Your task to perform on an android device: Show the shopping cart on newegg. Search for "razer kraken" on newegg, select the first entry, and add it to the cart. Image 0: 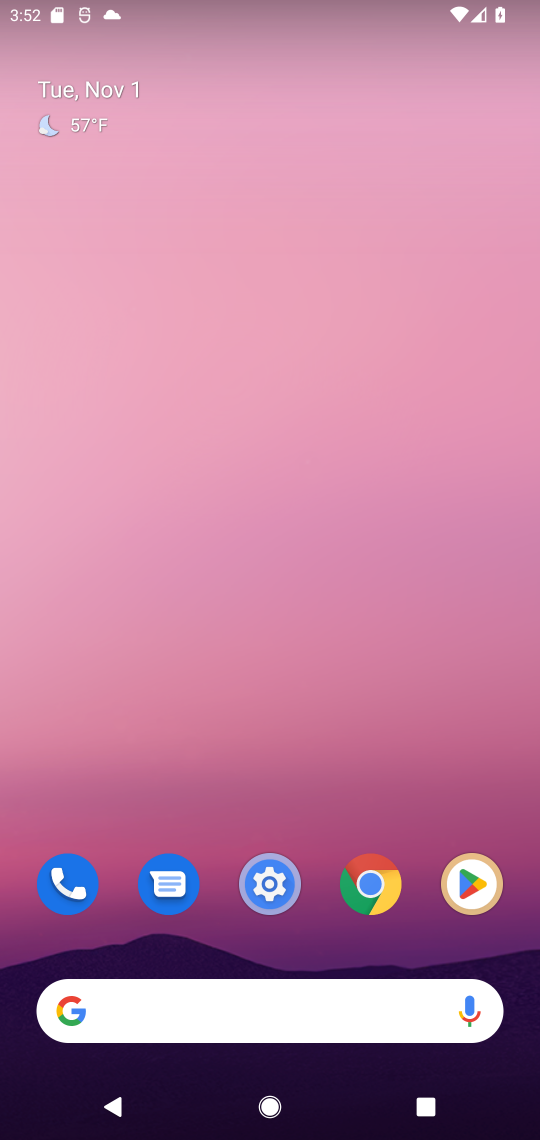
Step 0: press home button
Your task to perform on an android device: Show the shopping cart on newegg. Search for "razer kraken" on newegg, select the first entry, and add it to the cart. Image 1: 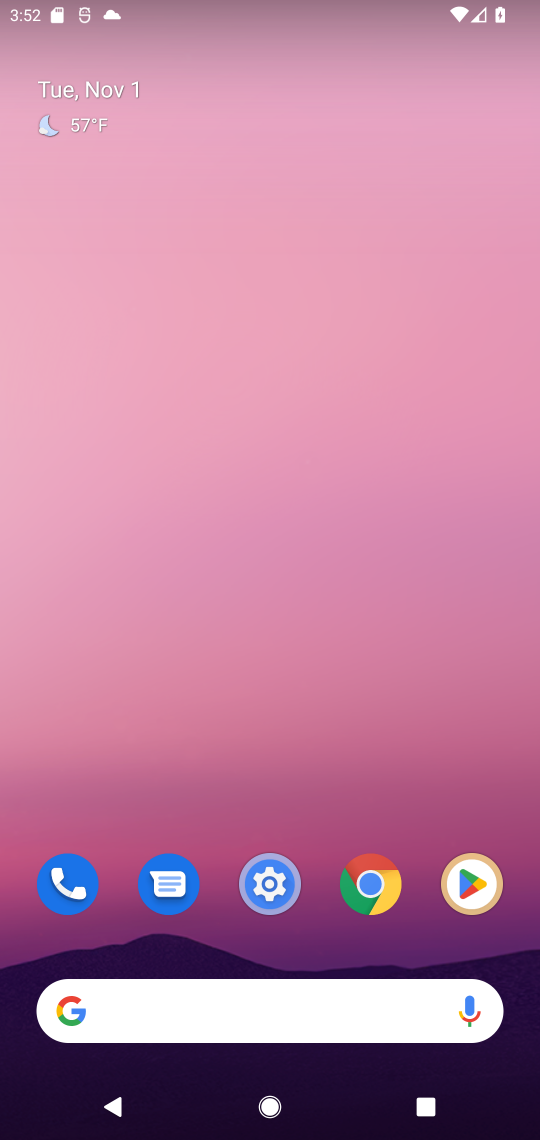
Step 1: click (122, 1002)
Your task to perform on an android device: Show the shopping cart on newegg. Search for "razer kraken" on newegg, select the first entry, and add it to the cart. Image 2: 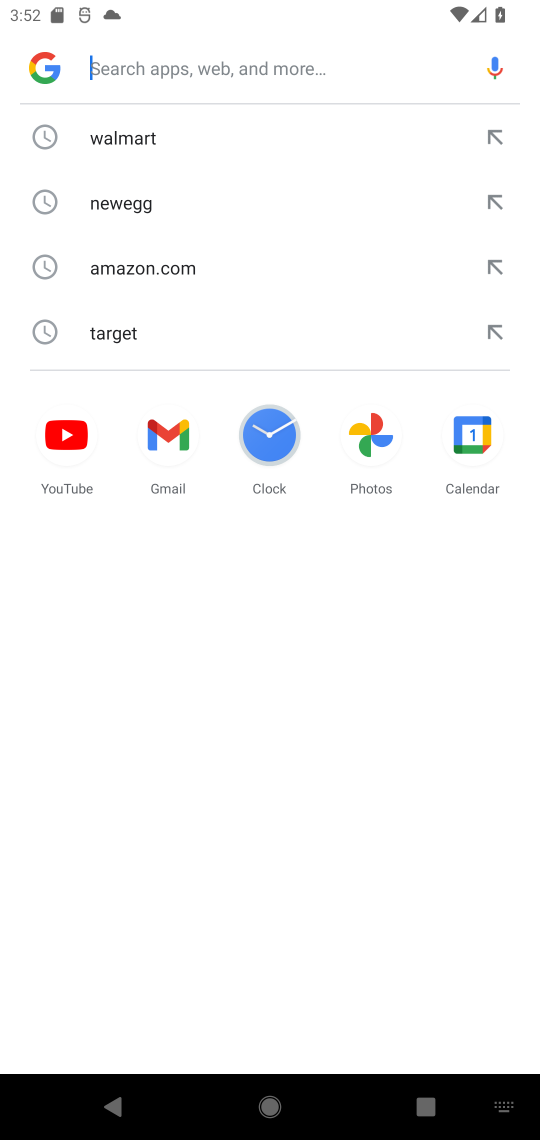
Step 2: type " newegg"
Your task to perform on an android device: Show the shopping cart on newegg. Search for "razer kraken" on newegg, select the first entry, and add it to the cart. Image 3: 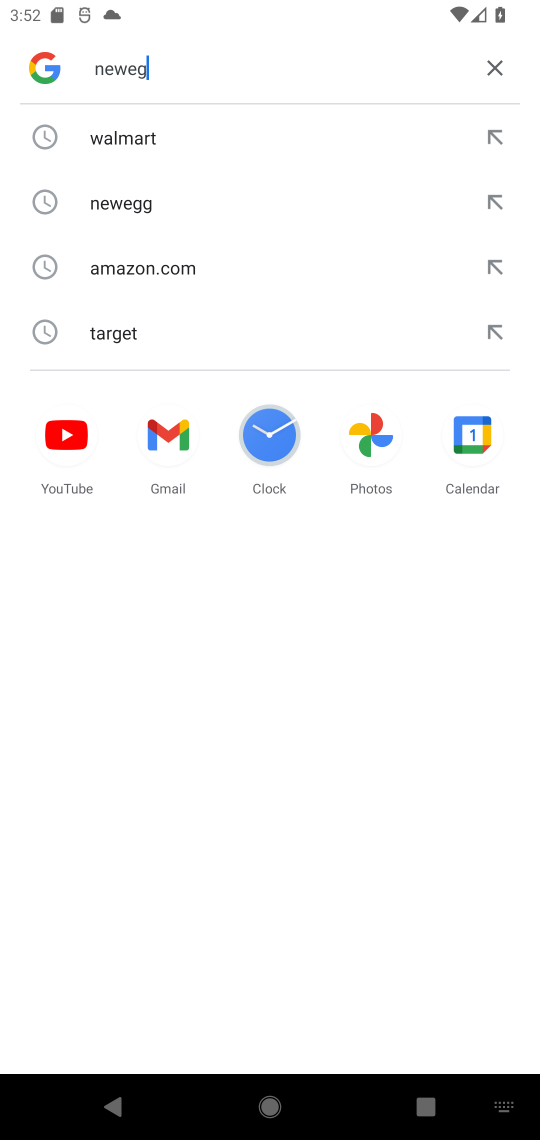
Step 3: press enter
Your task to perform on an android device: Show the shopping cart on newegg. Search for "razer kraken" on newegg, select the first entry, and add it to the cart. Image 4: 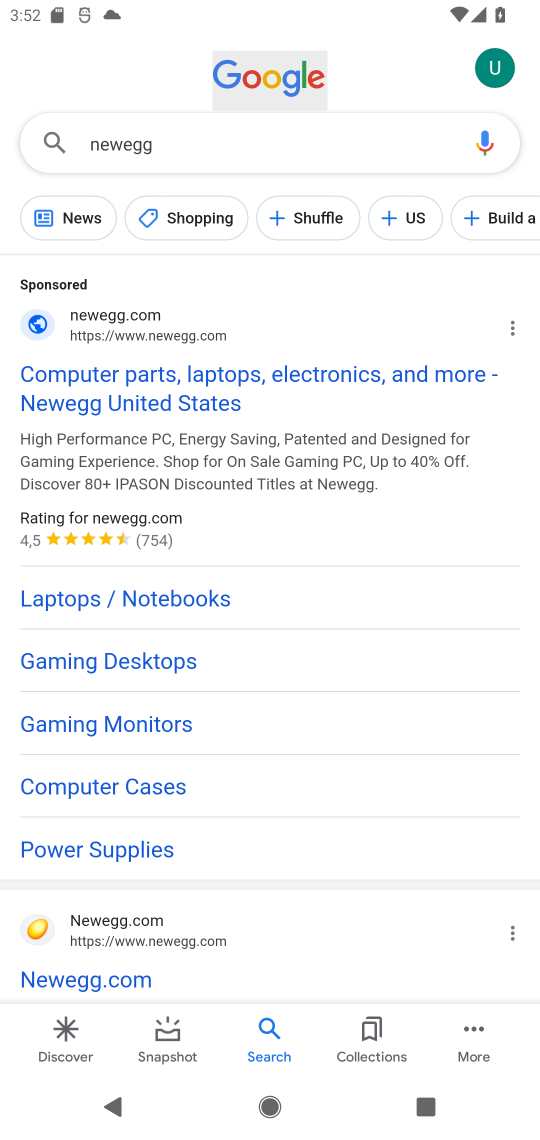
Step 4: drag from (376, 854) to (391, 443)
Your task to perform on an android device: Show the shopping cart on newegg. Search for "razer kraken" on newegg, select the first entry, and add it to the cart. Image 5: 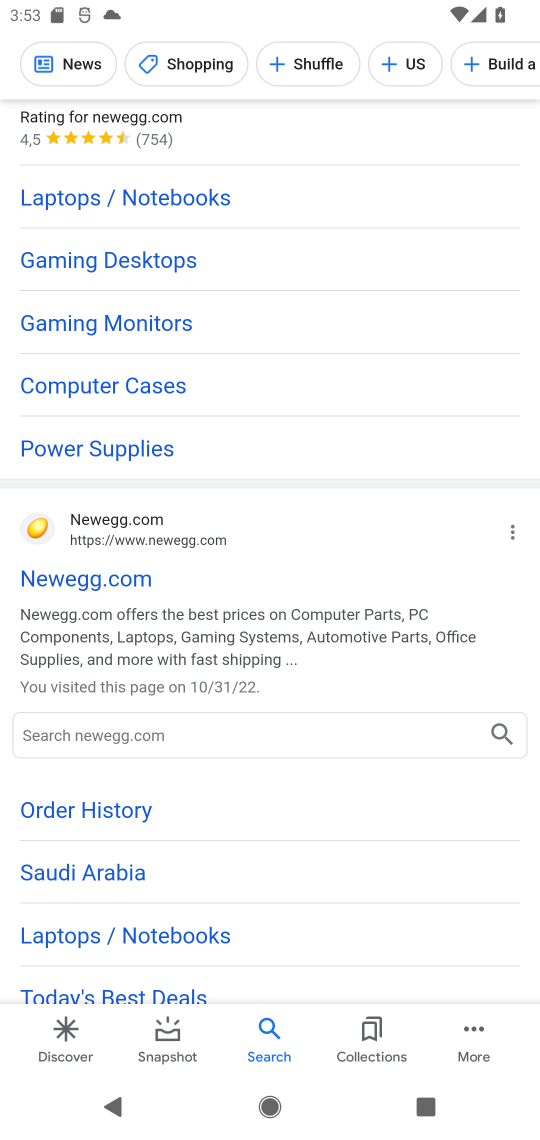
Step 5: click (86, 574)
Your task to perform on an android device: Show the shopping cart on newegg. Search for "razer kraken" on newegg, select the first entry, and add it to the cart. Image 6: 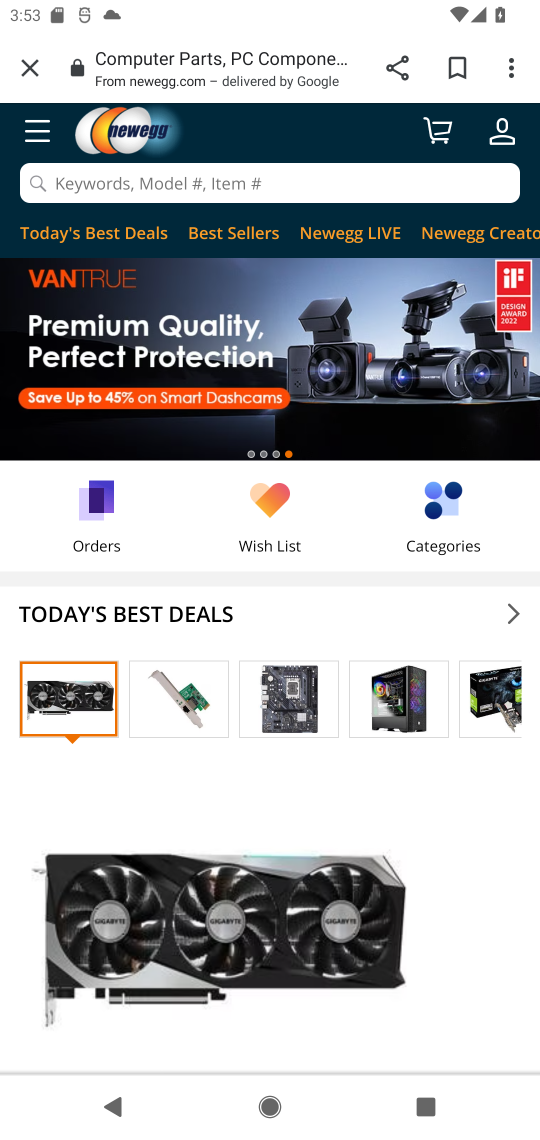
Step 6: click (433, 130)
Your task to perform on an android device: Show the shopping cart on newegg. Search for "razer kraken" on newegg, select the first entry, and add it to the cart. Image 7: 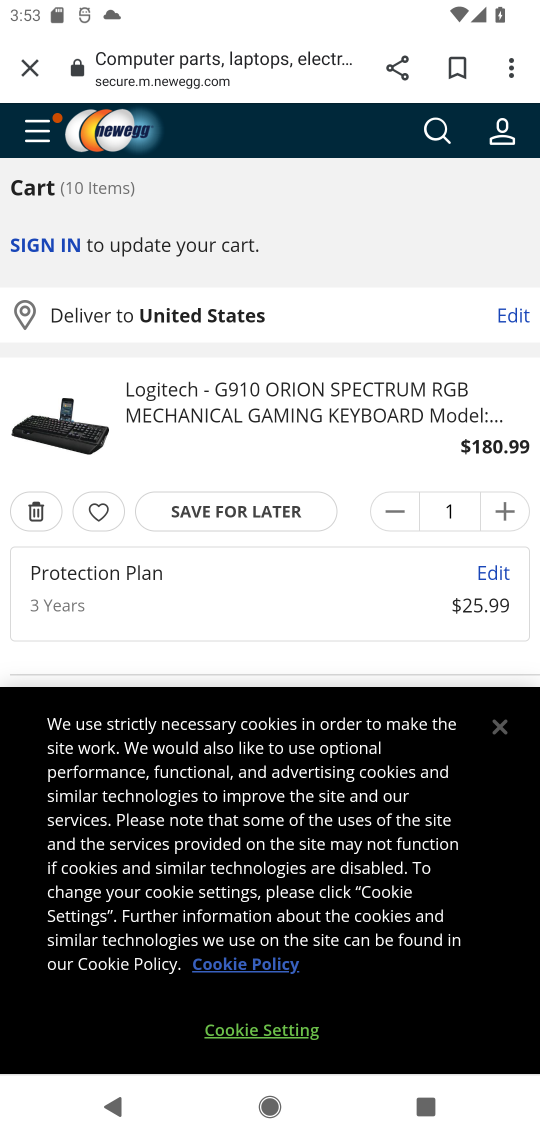
Step 7: click (435, 133)
Your task to perform on an android device: Show the shopping cart on newegg. Search for "razer kraken" on newegg, select the first entry, and add it to the cart. Image 8: 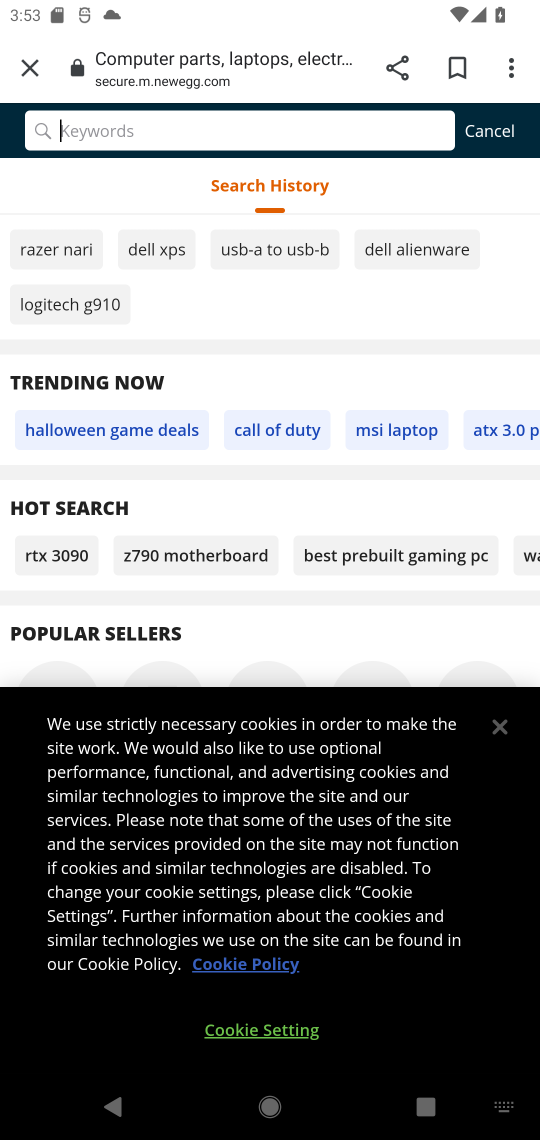
Step 8: type "razer kraken"
Your task to perform on an android device: Show the shopping cart on newegg. Search for "razer kraken" on newegg, select the first entry, and add it to the cart. Image 9: 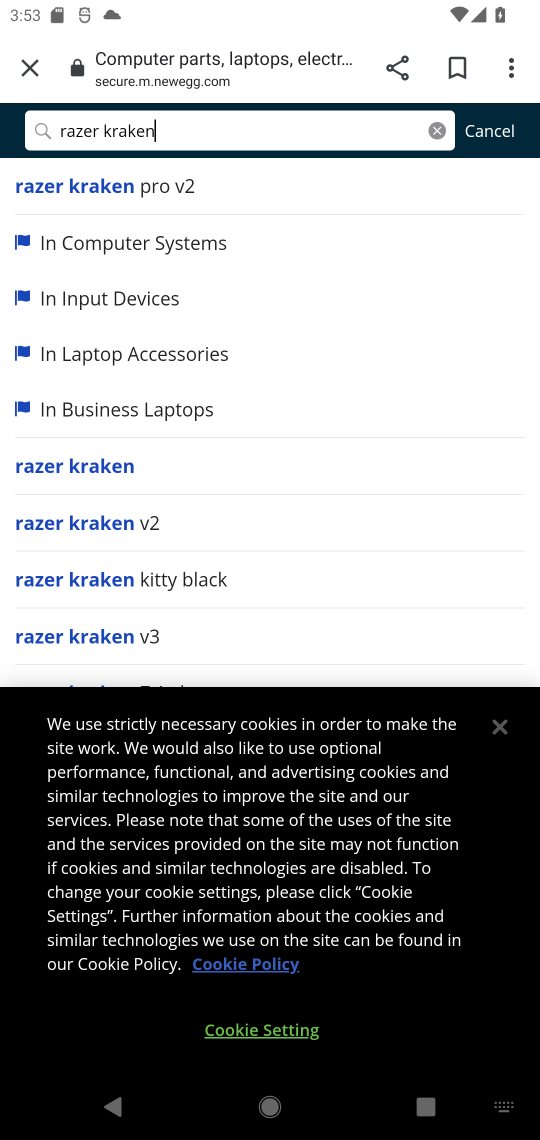
Step 9: click (79, 469)
Your task to perform on an android device: Show the shopping cart on newegg. Search for "razer kraken" on newegg, select the first entry, and add it to the cart. Image 10: 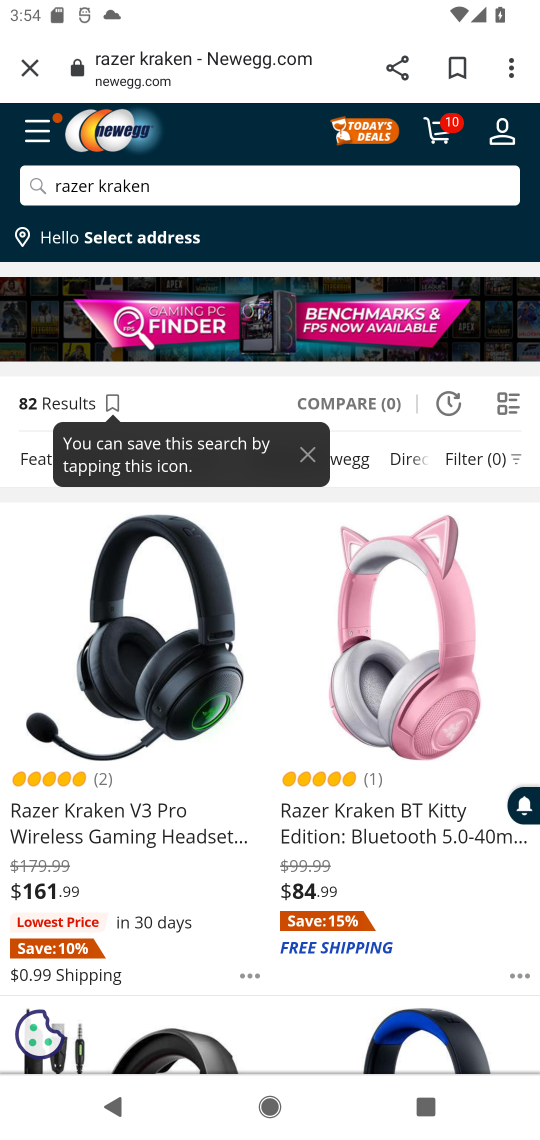
Step 10: click (47, 822)
Your task to perform on an android device: Show the shopping cart on newegg. Search for "razer kraken" on newegg, select the first entry, and add it to the cart. Image 11: 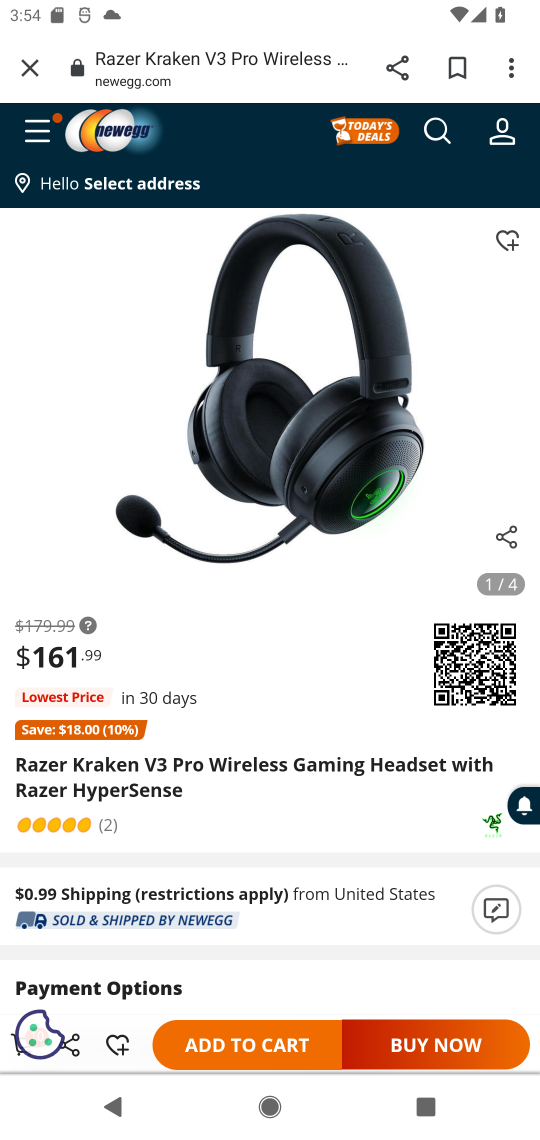
Step 11: click (249, 1049)
Your task to perform on an android device: Show the shopping cart on newegg. Search for "razer kraken" on newegg, select the first entry, and add it to the cart. Image 12: 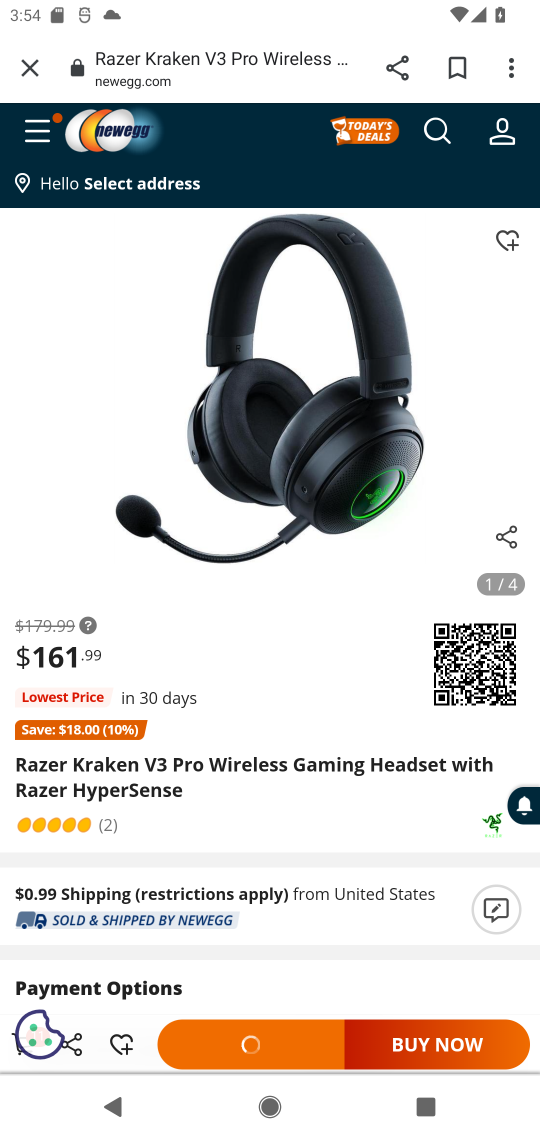
Step 12: click (231, 1048)
Your task to perform on an android device: Show the shopping cart on newegg. Search for "razer kraken" on newegg, select the first entry, and add it to the cart. Image 13: 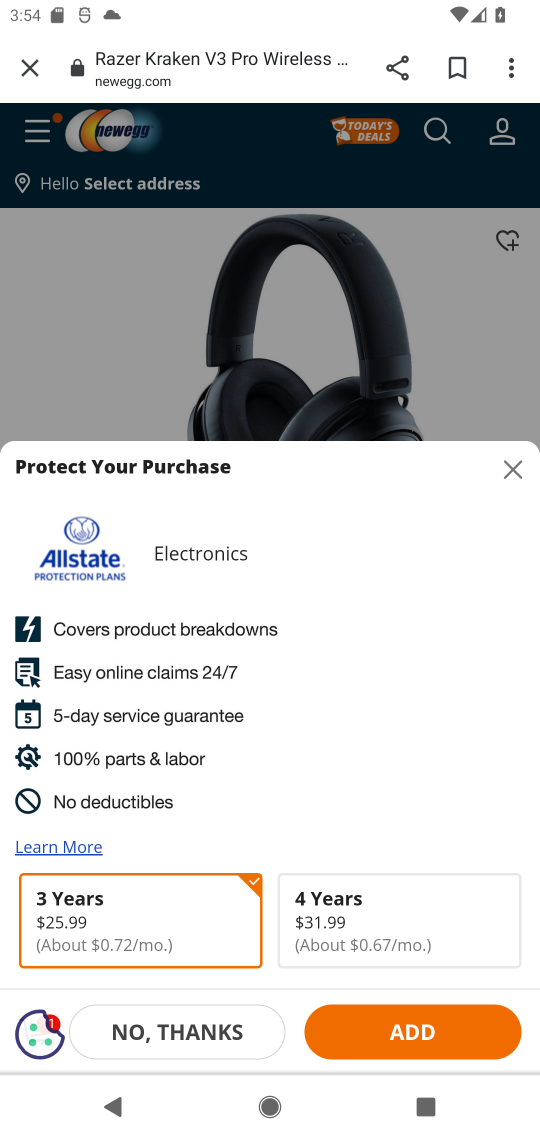
Step 13: click (399, 1035)
Your task to perform on an android device: Show the shopping cart on newegg. Search for "razer kraken" on newegg, select the first entry, and add it to the cart. Image 14: 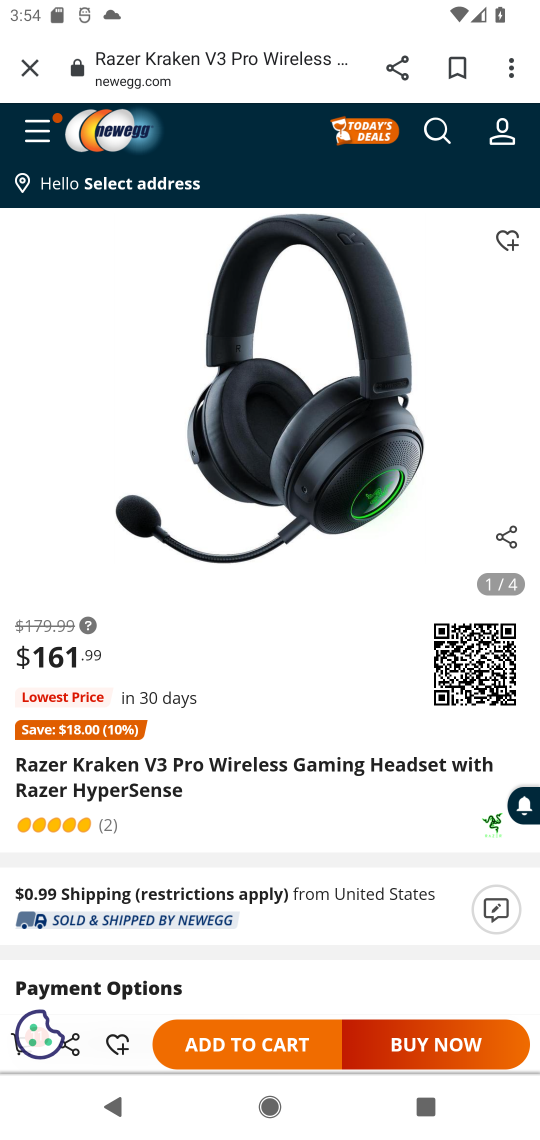
Step 14: task complete